Your task to perform on an android device: View the shopping cart on bestbuy. Add "logitech g933" to the cart on bestbuy, then select checkout. Image 0: 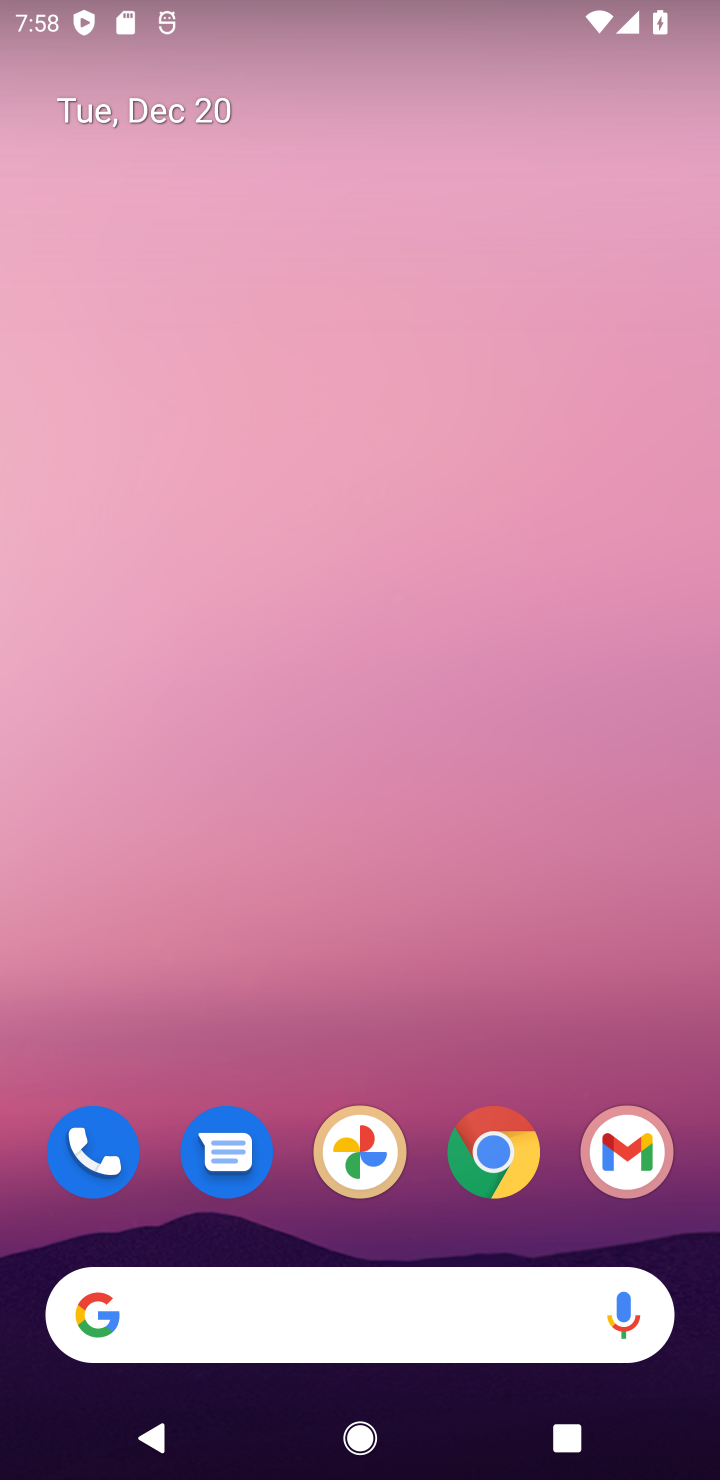
Step 0: click (487, 1138)
Your task to perform on an android device: View the shopping cart on bestbuy. Add "logitech g933" to the cart on bestbuy, then select checkout. Image 1: 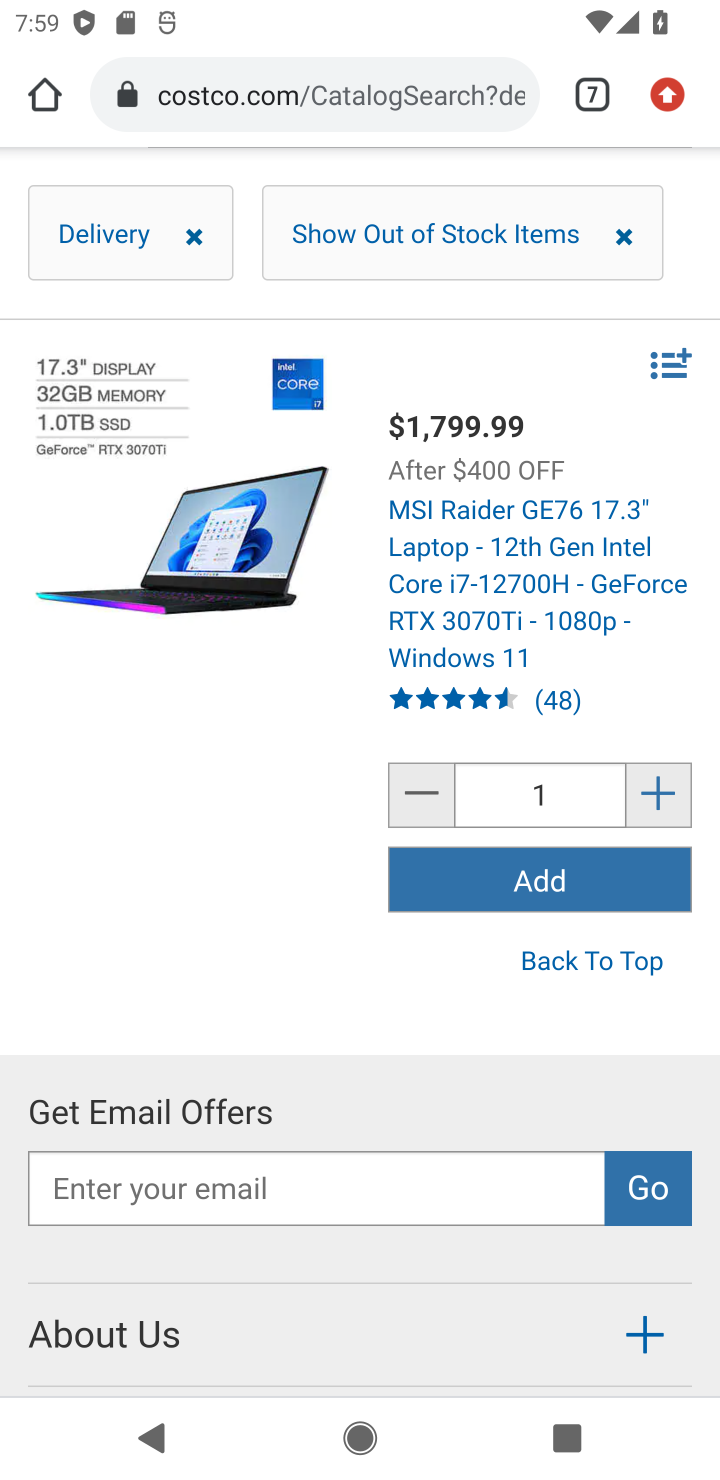
Step 1: click (596, 92)
Your task to perform on an android device: View the shopping cart on bestbuy. Add "logitech g933" to the cart on bestbuy, then select checkout. Image 2: 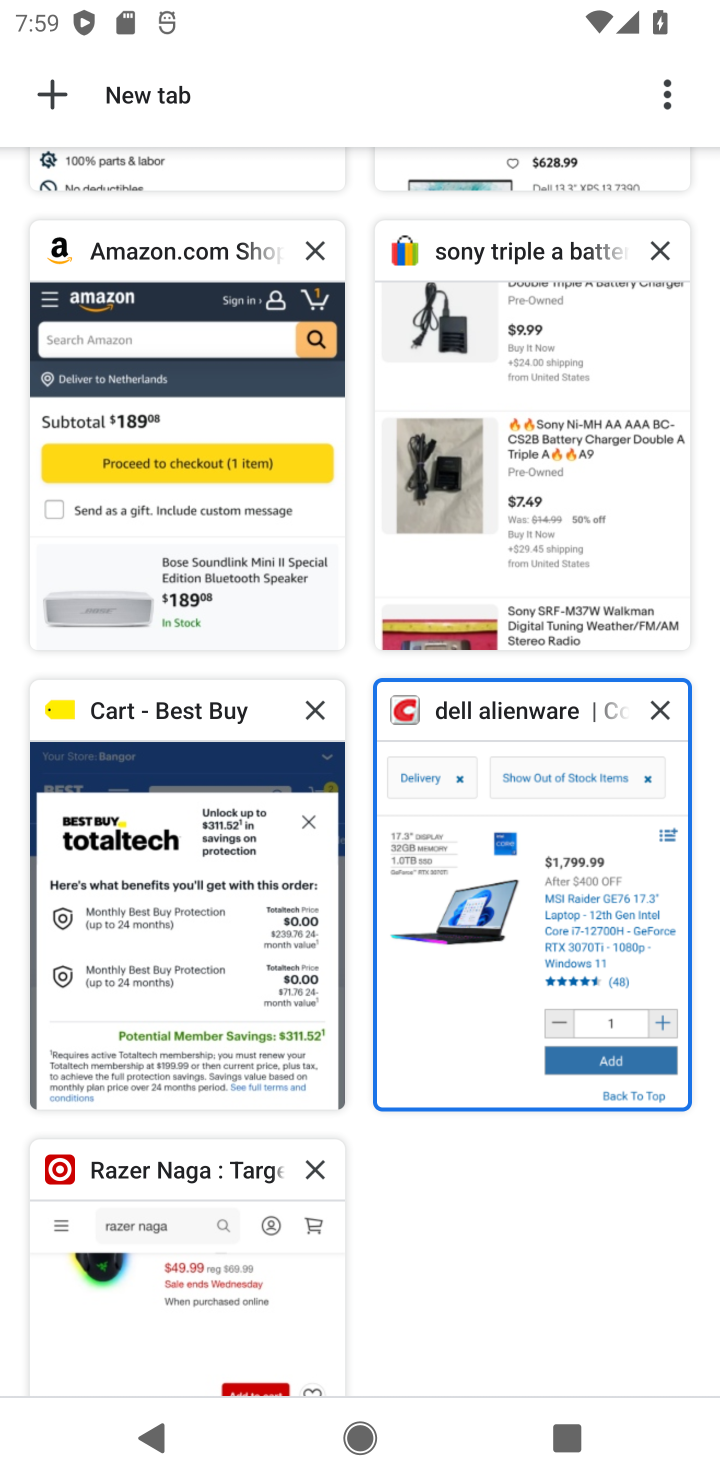
Step 2: click (198, 888)
Your task to perform on an android device: View the shopping cart on bestbuy. Add "logitech g933" to the cart on bestbuy, then select checkout. Image 3: 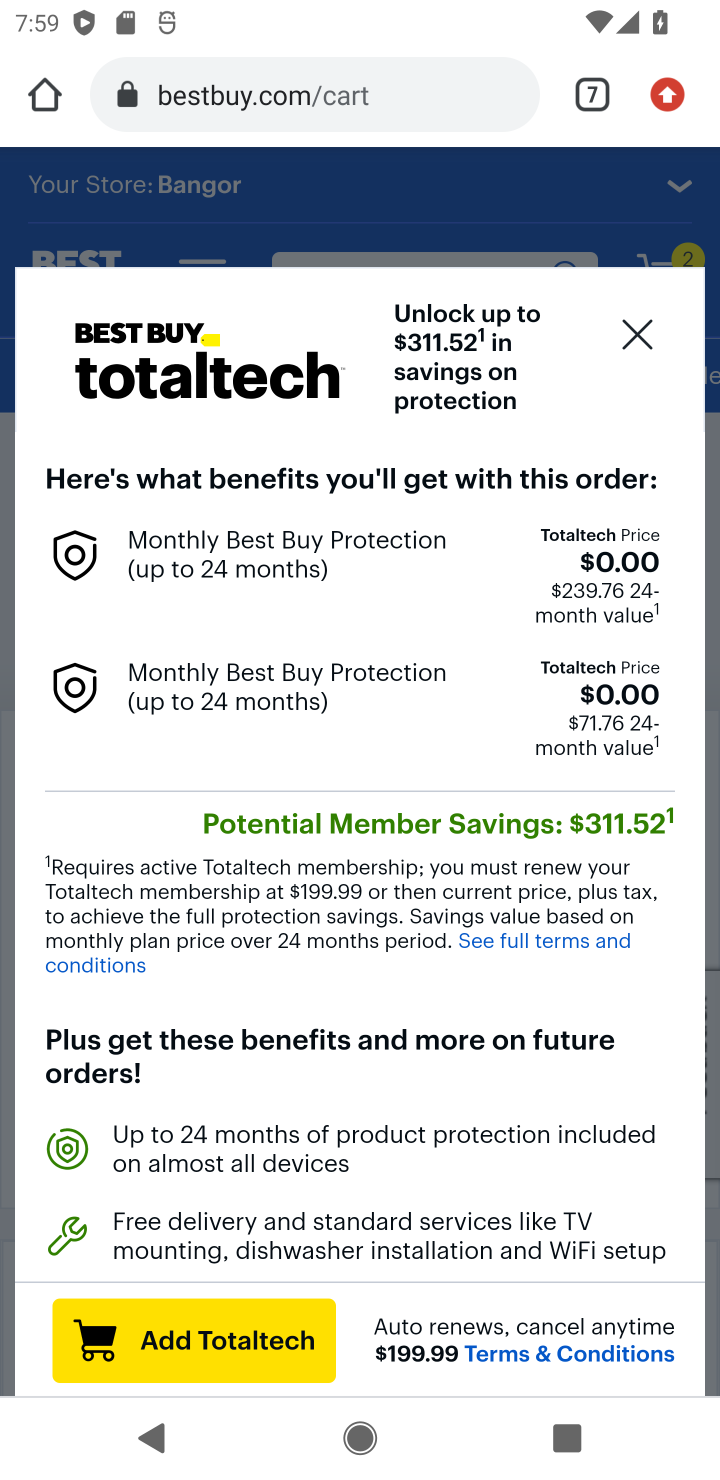
Step 3: click (626, 327)
Your task to perform on an android device: View the shopping cart on bestbuy. Add "logitech g933" to the cart on bestbuy, then select checkout. Image 4: 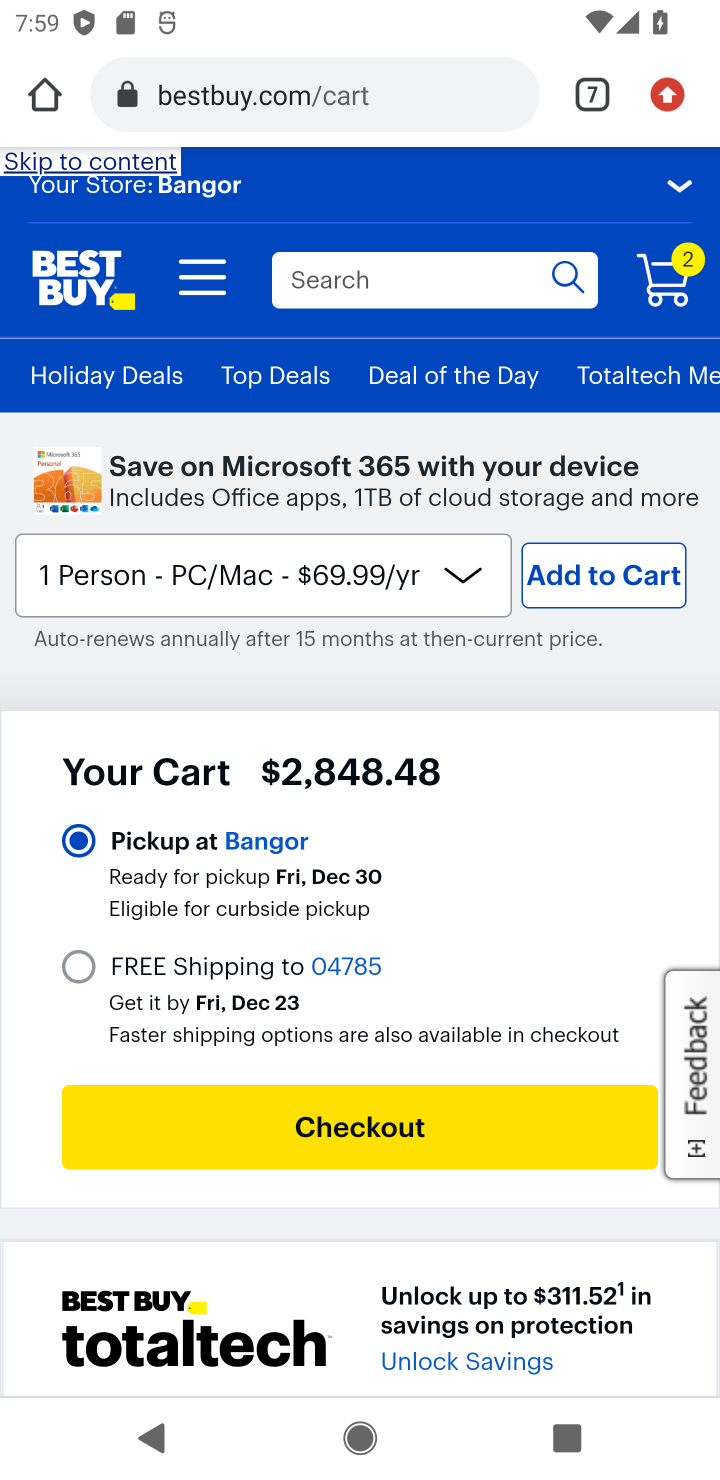
Step 4: drag from (457, 1028) to (600, 407)
Your task to perform on an android device: View the shopping cart on bestbuy. Add "logitech g933" to the cart on bestbuy, then select checkout. Image 5: 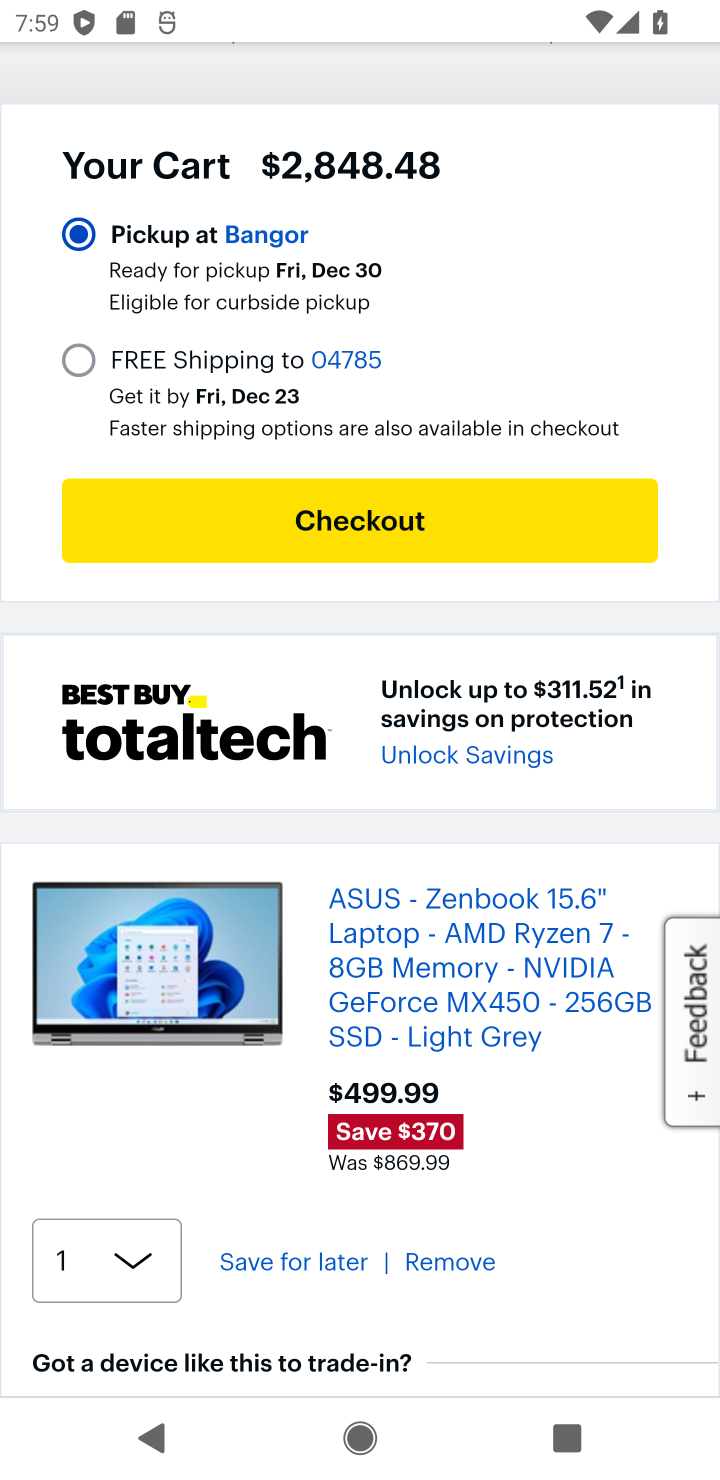
Step 5: drag from (543, 247) to (430, 970)
Your task to perform on an android device: View the shopping cart on bestbuy. Add "logitech g933" to the cart on bestbuy, then select checkout. Image 6: 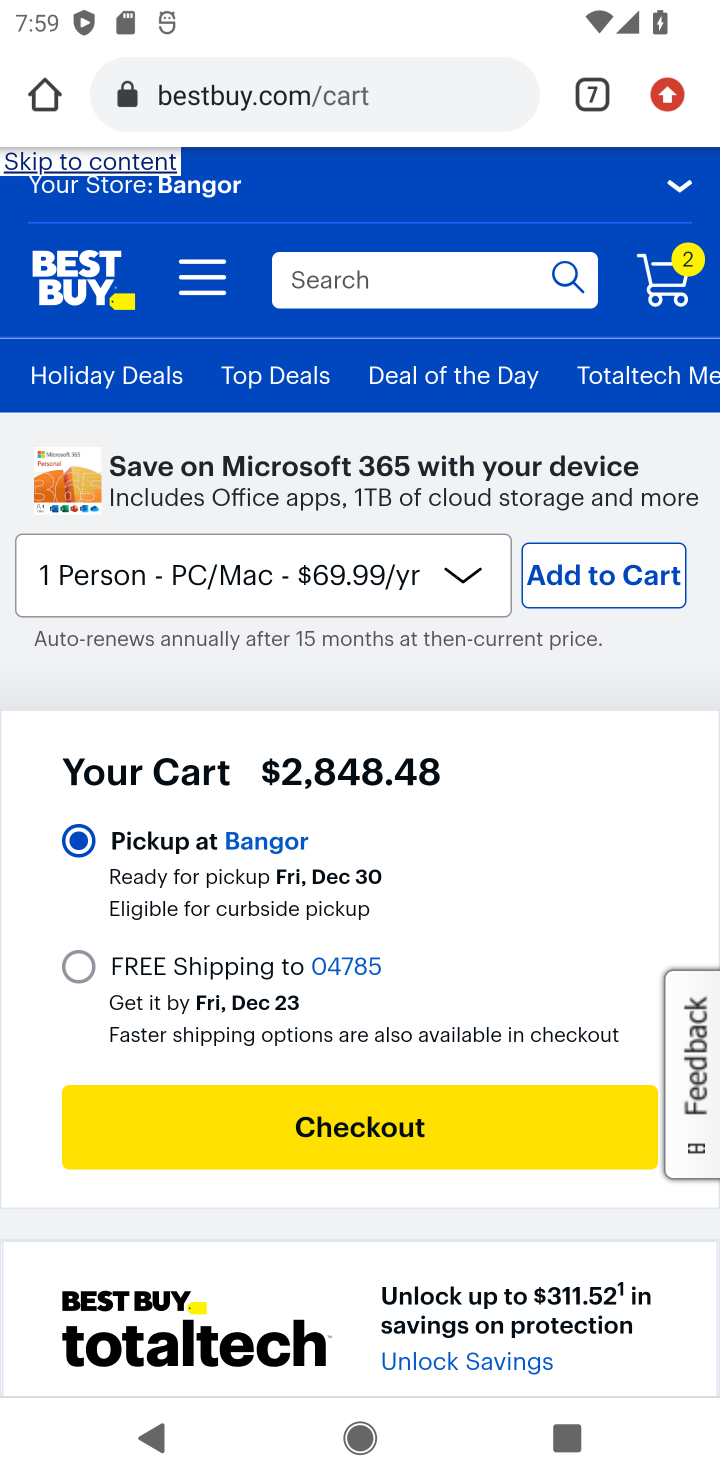
Step 6: click (392, 292)
Your task to perform on an android device: View the shopping cart on bestbuy. Add "logitech g933" to the cart on bestbuy, then select checkout. Image 7: 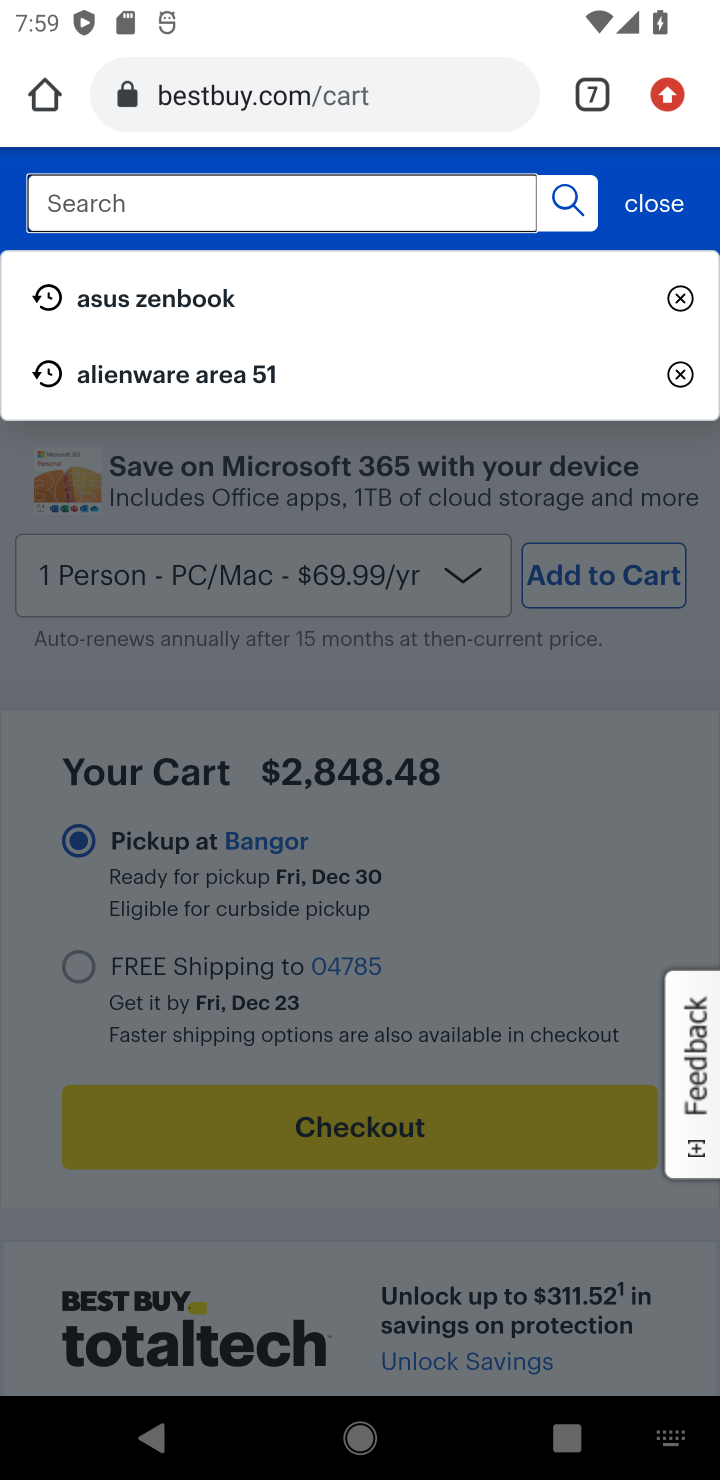
Step 7: type "logitech g933"
Your task to perform on an android device: View the shopping cart on bestbuy. Add "logitech g933" to the cart on bestbuy, then select checkout. Image 8: 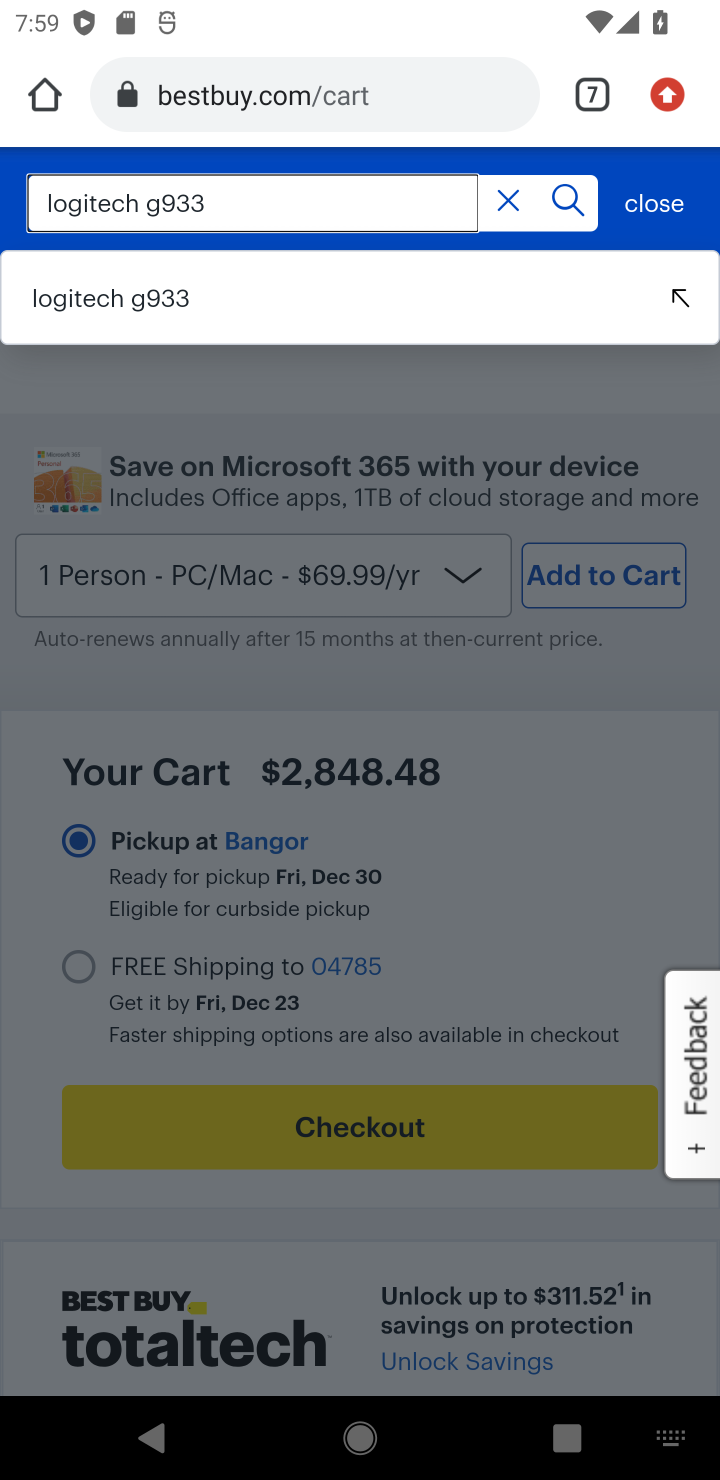
Step 8: click (572, 201)
Your task to perform on an android device: View the shopping cart on bestbuy. Add "logitech g933" to the cart on bestbuy, then select checkout. Image 9: 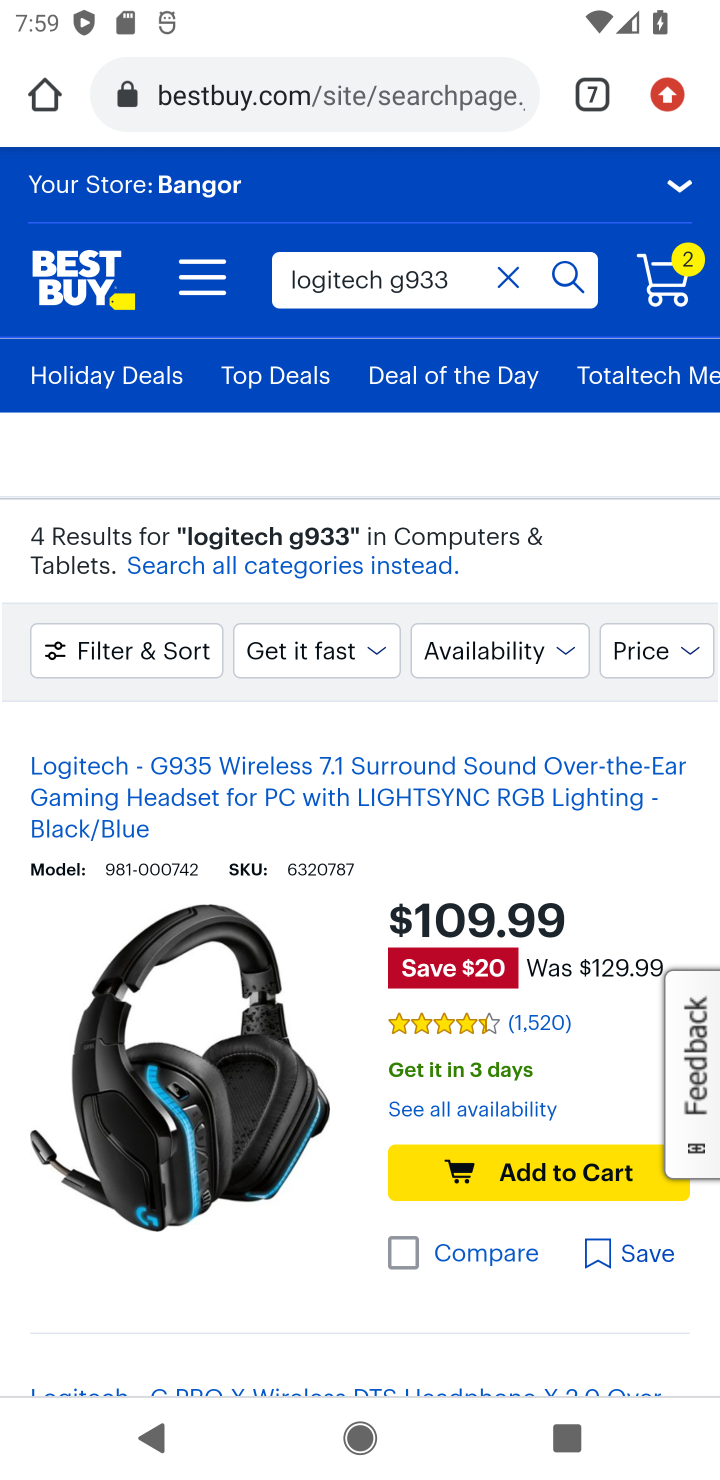
Step 9: task complete